Your task to perform on an android device: open app "Messenger Lite" Image 0: 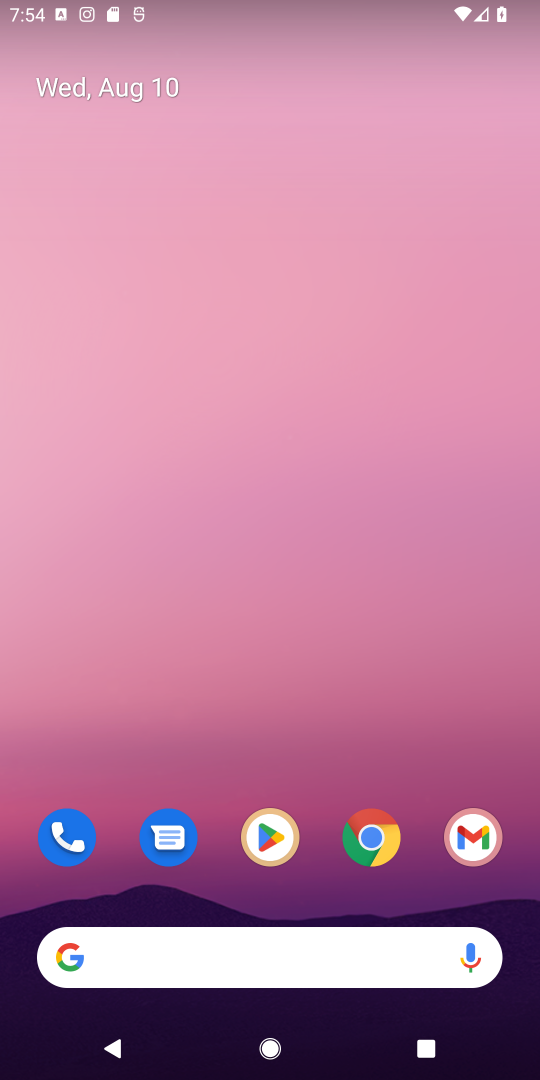
Step 0: press home button
Your task to perform on an android device: open app "Messenger Lite" Image 1: 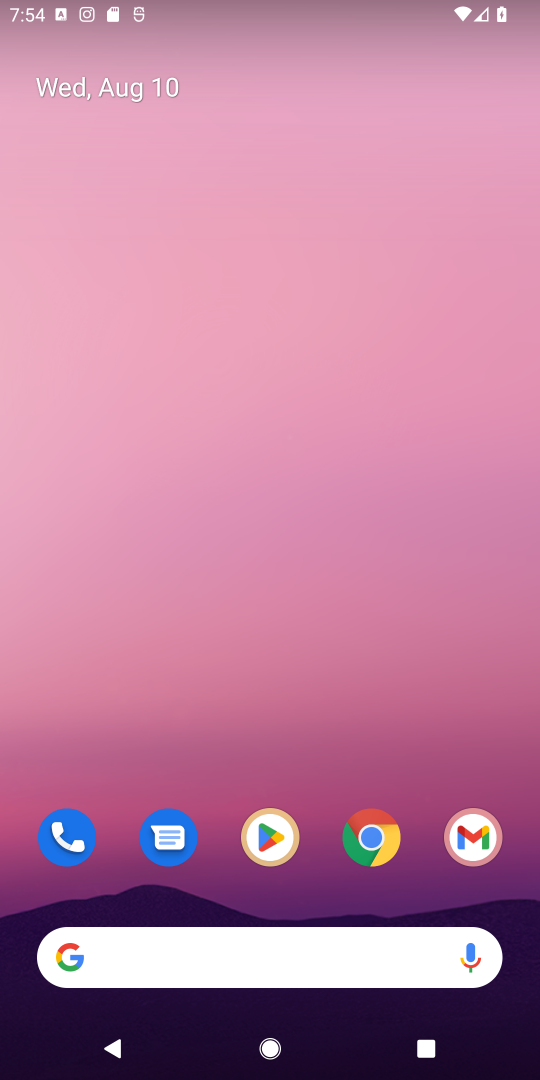
Step 1: click (273, 840)
Your task to perform on an android device: open app "Messenger Lite" Image 2: 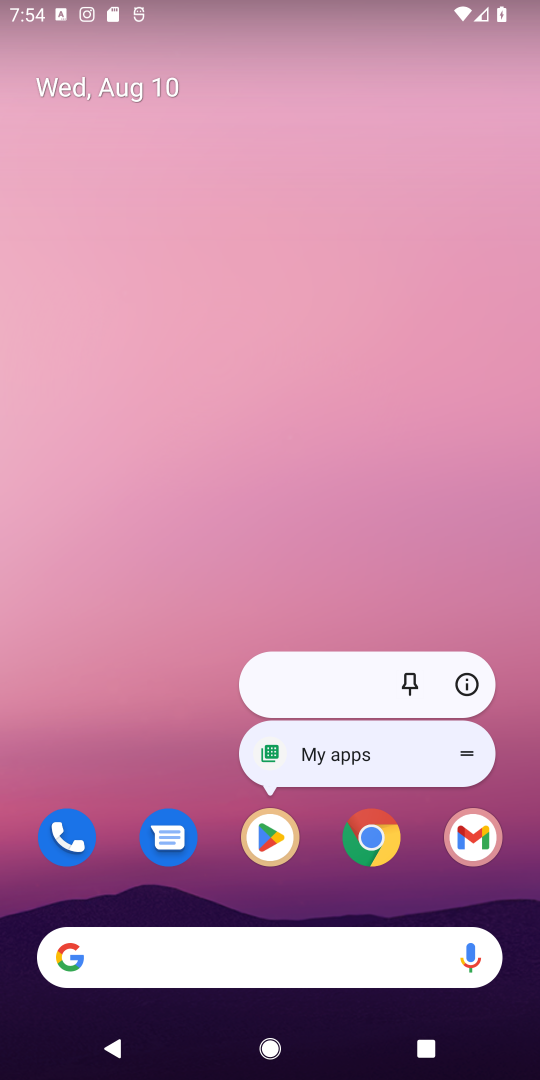
Step 2: click (273, 843)
Your task to perform on an android device: open app "Messenger Lite" Image 3: 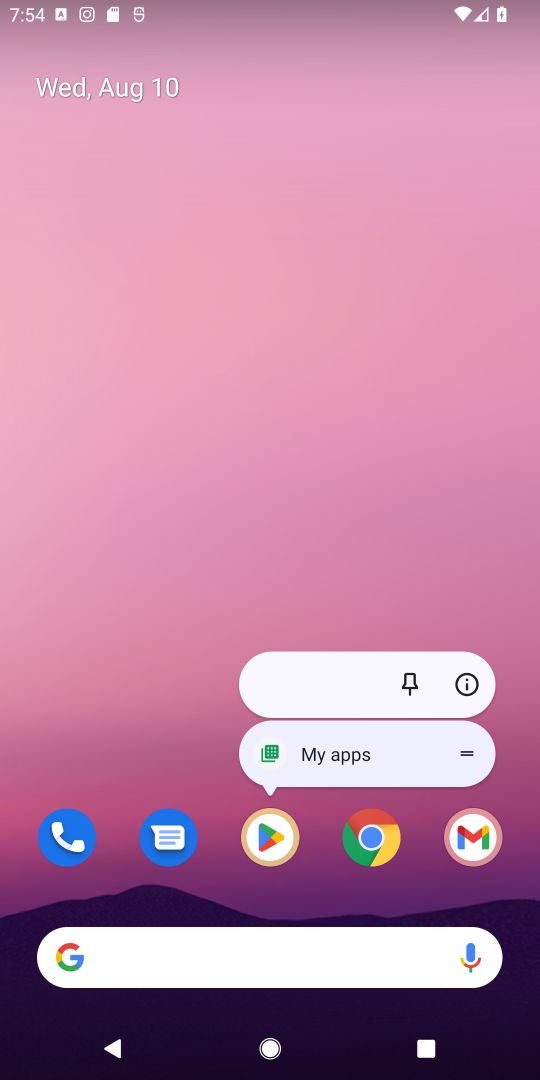
Step 3: click (266, 832)
Your task to perform on an android device: open app "Messenger Lite" Image 4: 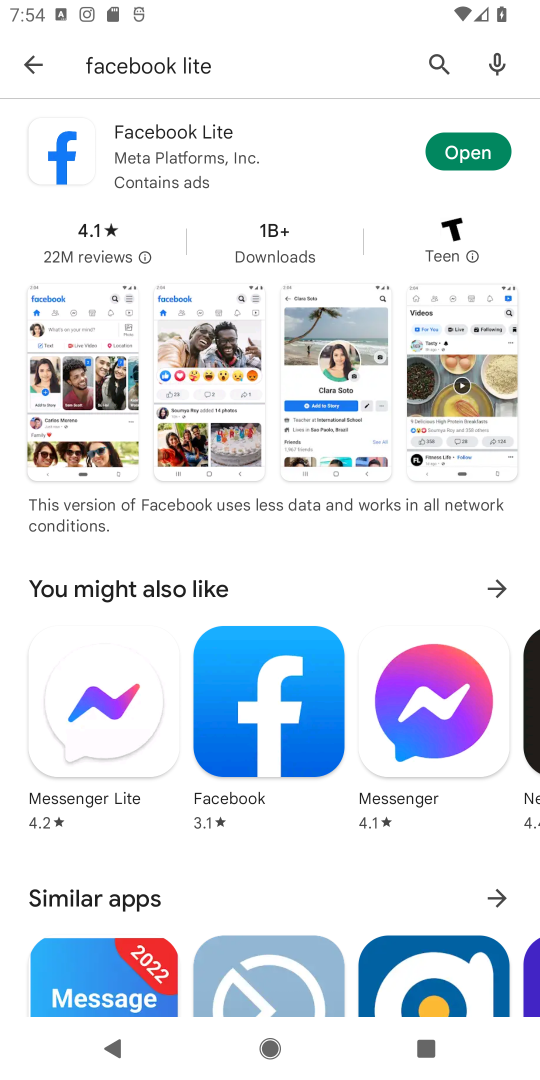
Step 4: click (437, 64)
Your task to perform on an android device: open app "Messenger Lite" Image 5: 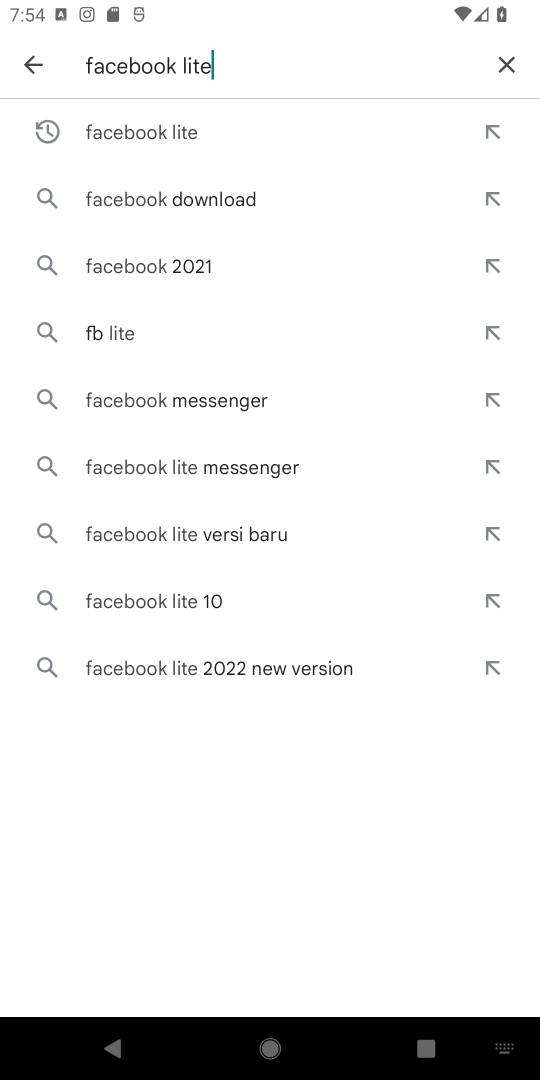
Step 5: click (509, 59)
Your task to perform on an android device: open app "Messenger Lite" Image 6: 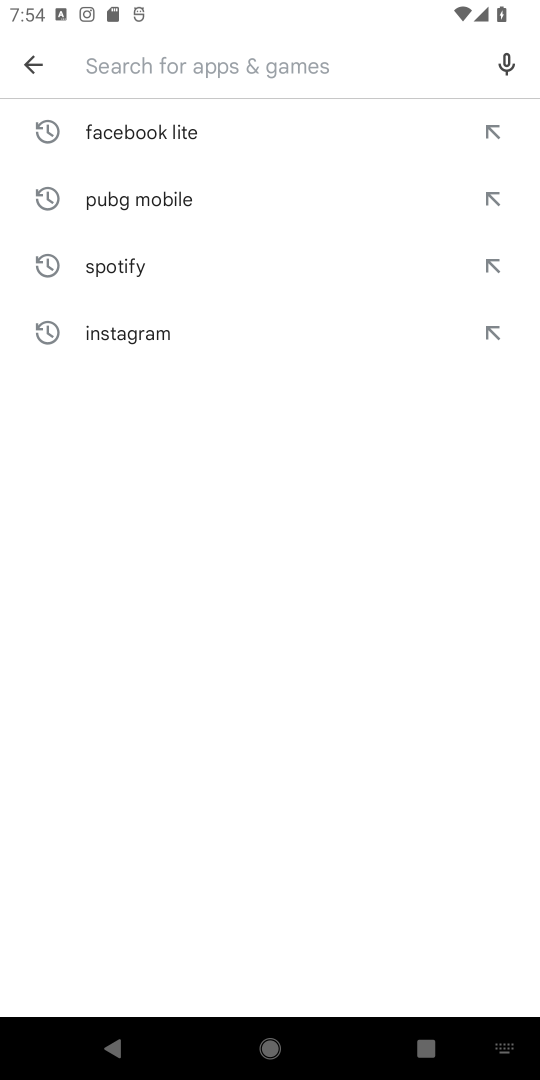
Step 6: type "Messenger Lite"
Your task to perform on an android device: open app "Messenger Lite" Image 7: 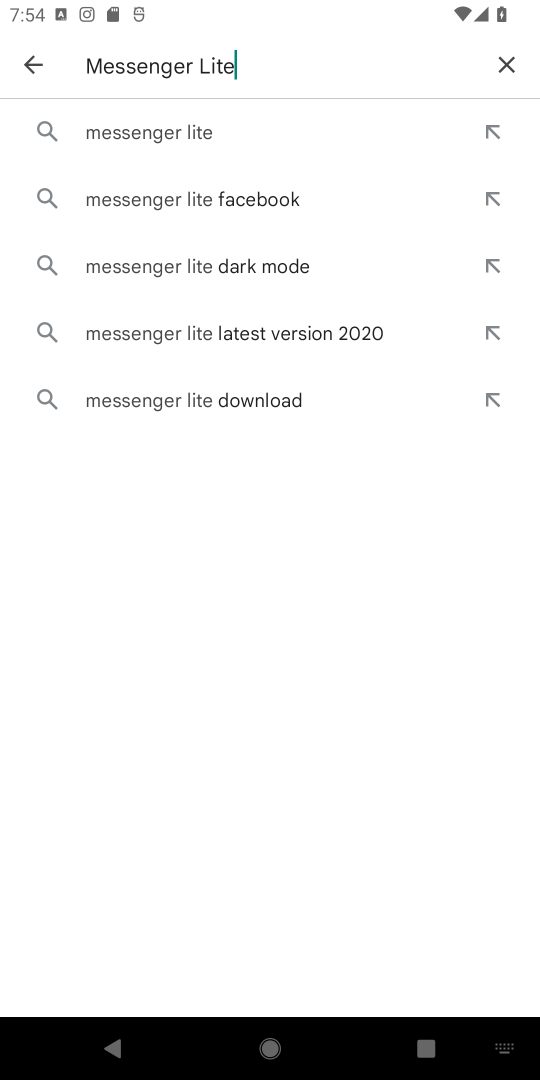
Step 7: click (115, 121)
Your task to perform on an android device: open app "Messenger Lite" Image 8: 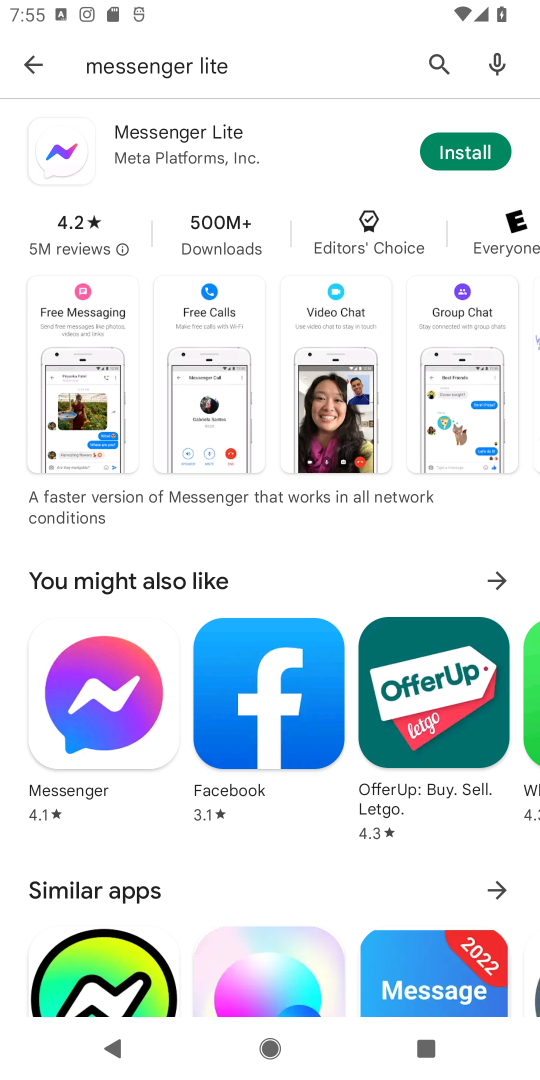
Step 8: task complete